Your task to perform on an android device: Open display settings Image 0: 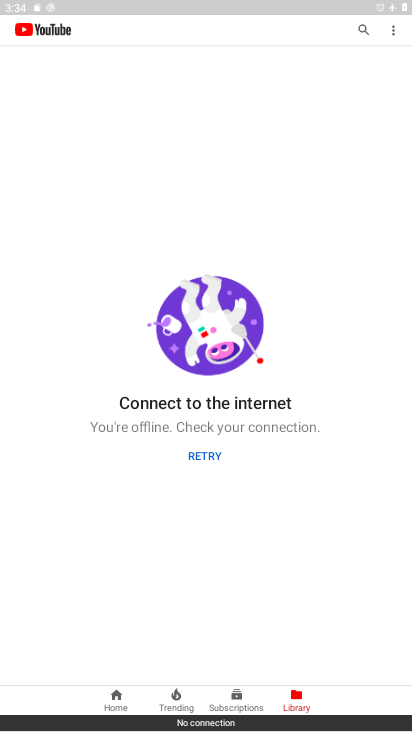
Step 0: press home button
Your task to perform on an android device: Open display settings Image 1: 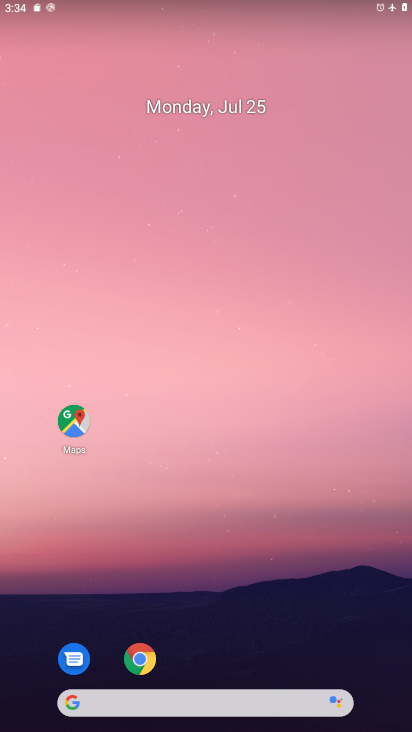
Step 1: drag from (193, 512) to (151, 143)
Your task to perform on an android device: Open display settings Image 2: 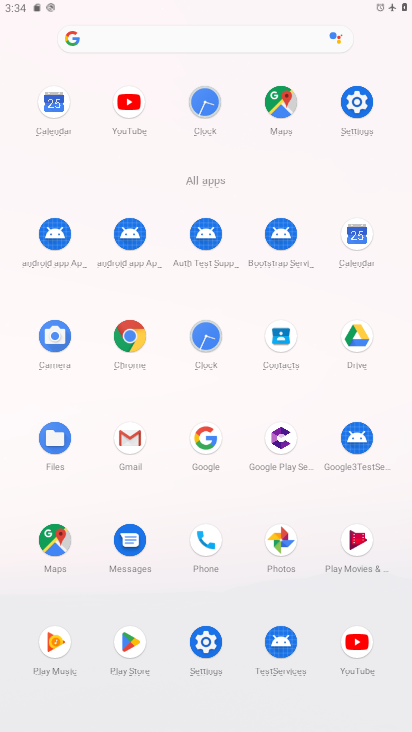
Step 2: click (363, 110)
Your task to perform on an android device: Open display settings Image 3: 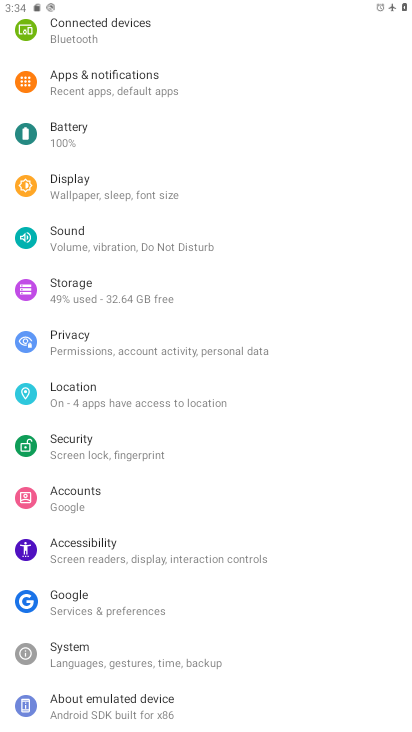
Step 3: click (54, 191)
Your task to perform on an android device: Open display settings Image 4: 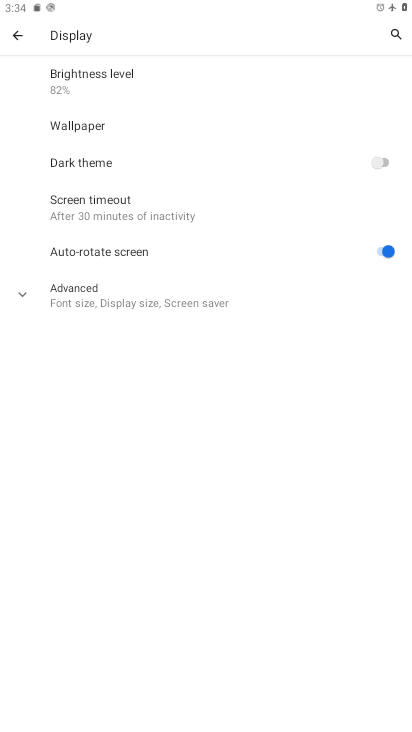
Step 4: task complete